Your task to perform on an android device: turn on sleep mode Image 0: 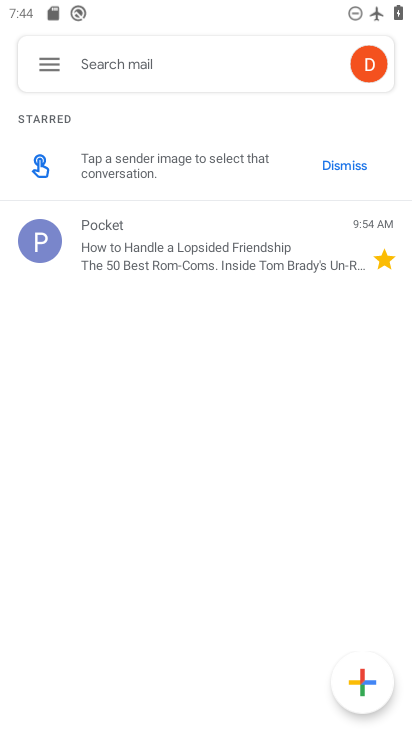
Step 0: press home button
Your task to perform on an android device: turn on sleep mode Image 1: 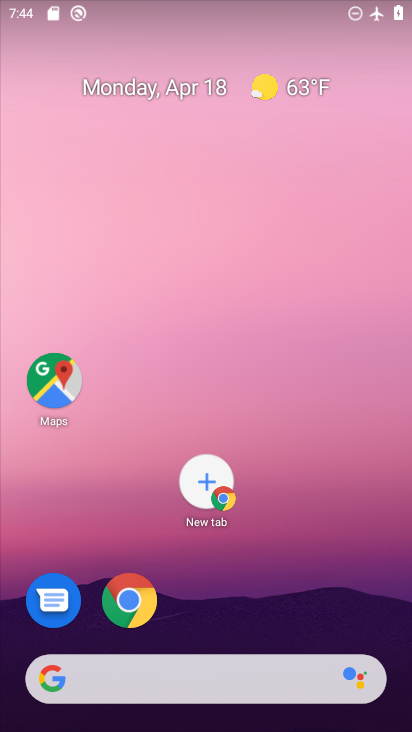
Step 1: drag from (258, 605) to (170, 2)
Your task to perform on an android device: turn on sleep mode Image 2: 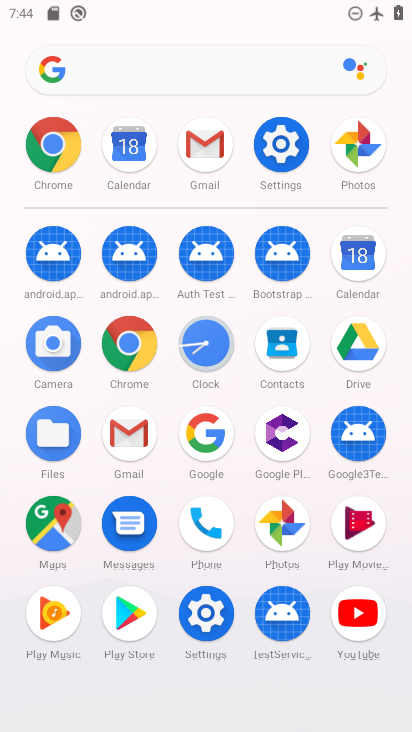
Step 2: click (284, 149)
Your task to perform on an android device: turn on sleep mode Image 3: 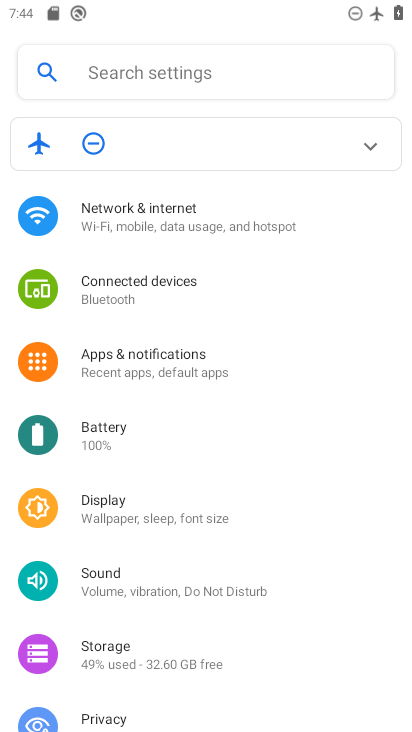
Step 3: click (103, 500)
Your task to perform on an android device: turn on sleep mode Image 4: 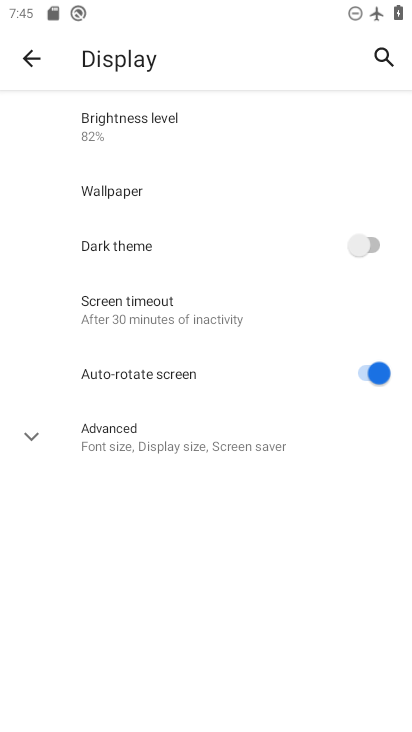
Step 4: task complete